Your task to perform on an android device: turn on the 24-hour format for clock Image 0: 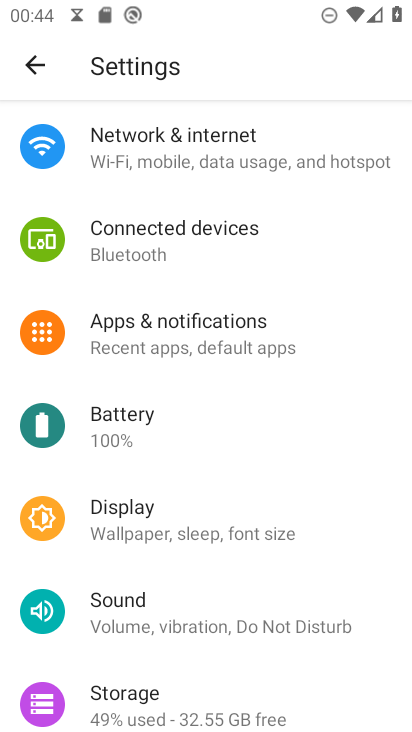
Step 0: press back button
Your task to perform on an android device: turn on the 24-hour format for clock Image 1: 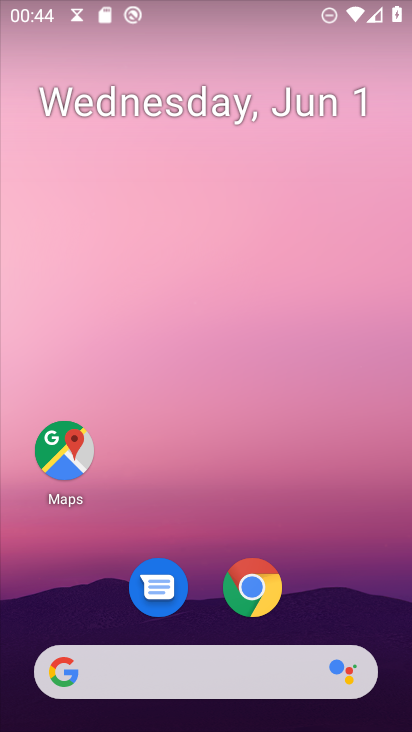
Step 1: drag from (340, 594) to (291, 53)
Your task to perform on an android device: turn on the 24-hour format for clock Image 2: 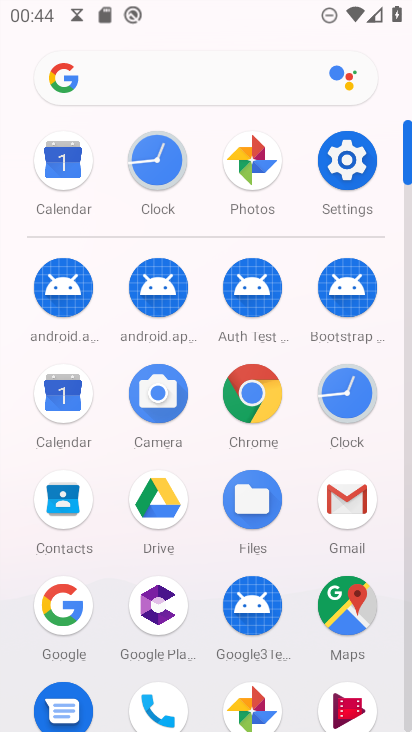
Step 2: click (338, 390)
Your task to perform on an android device: turn on the 24-hour format for clock Image 3: 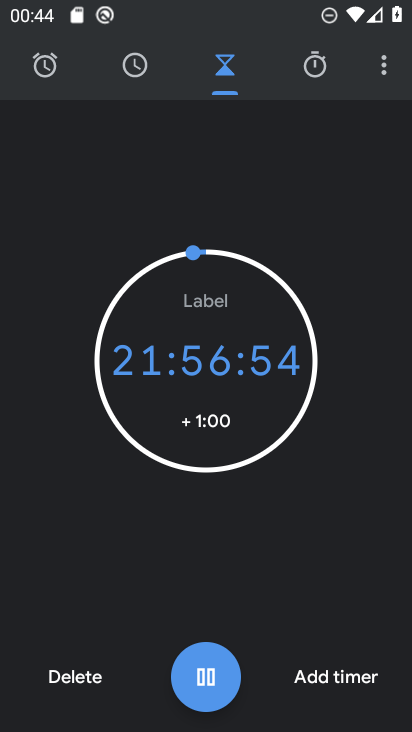
Step 3: click (389, 68)
Your task to perform on an android device: turn on the 24-hour format for clock Image 4: 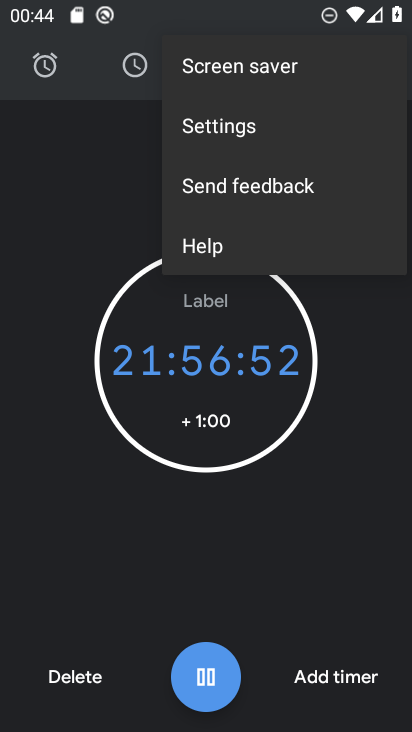
Step 4: click (215, 128)
Your task to perform on an android device: turn on the 24-hour format for clock Image 5: 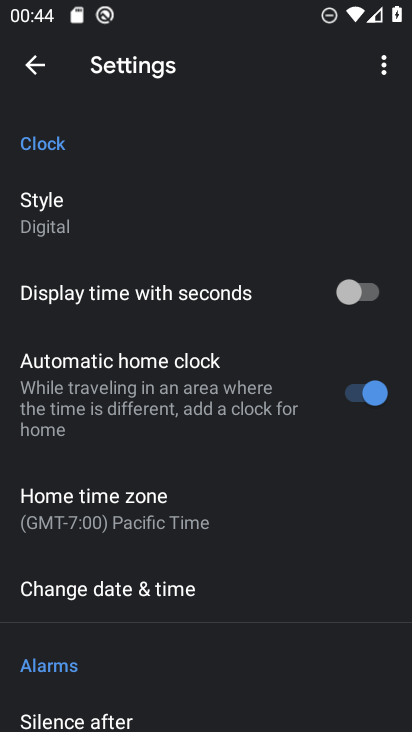
Step 5: click (175, 585)
Your task to perform on an android device: turn on the 24-hour format for clock Image 6: 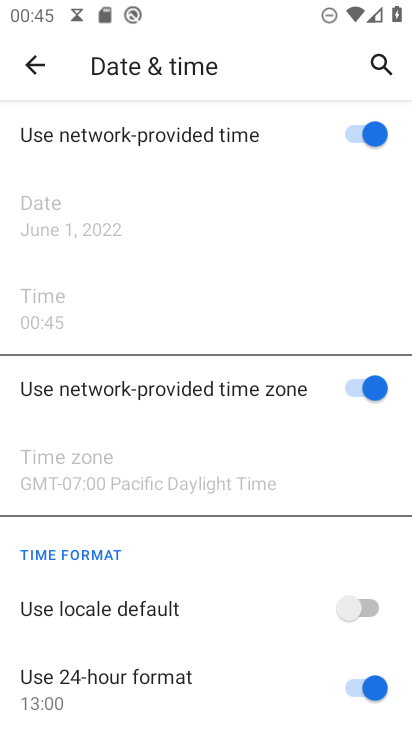
Step 6: task complete